Your task to perform on an android device: open app "DoorDash - Food Delivery" (install if not already installed), go to login, and select forgot password Image 0: 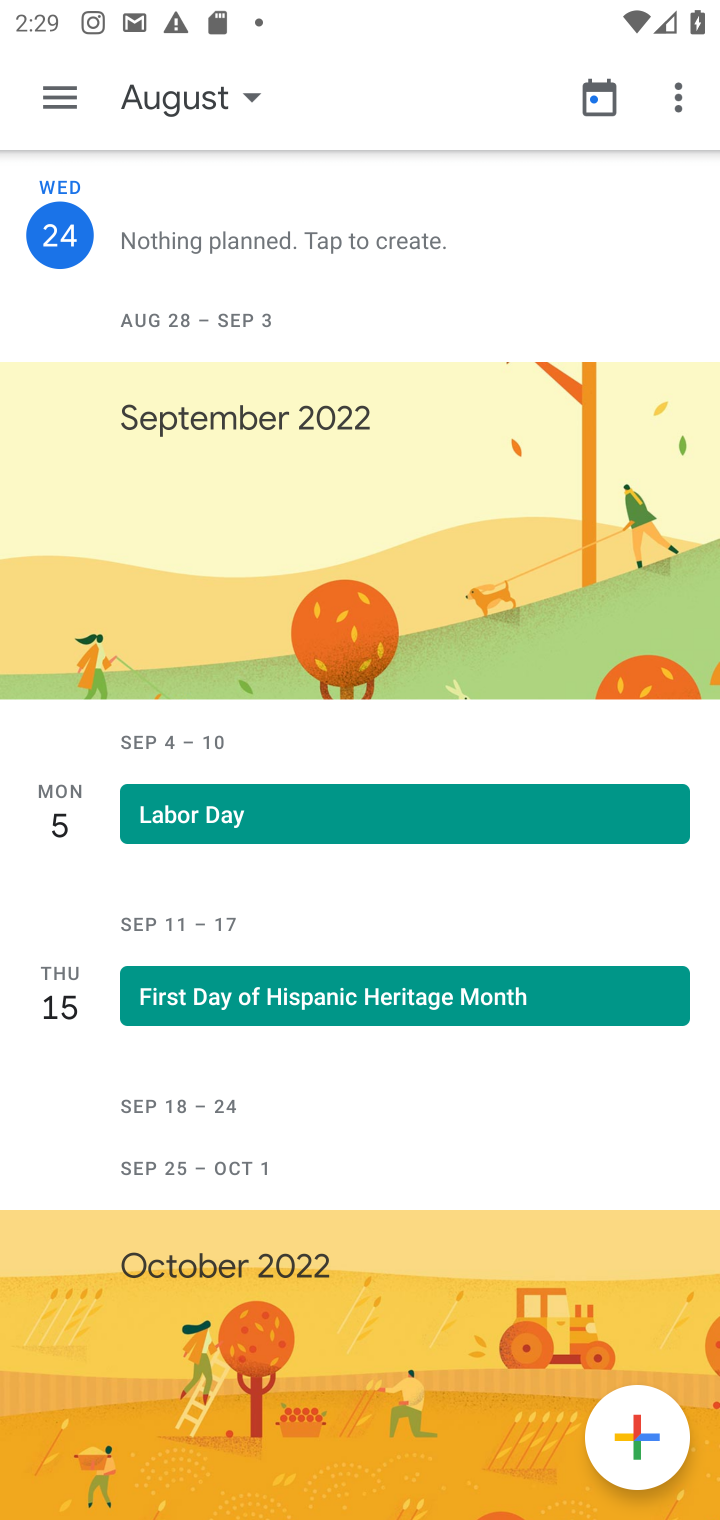
Step 0: press home button
Your task to perform on an android device: open app "DoorDash - Food Delivery" (install if not already installed), go to login, and select forgot password Image 1: 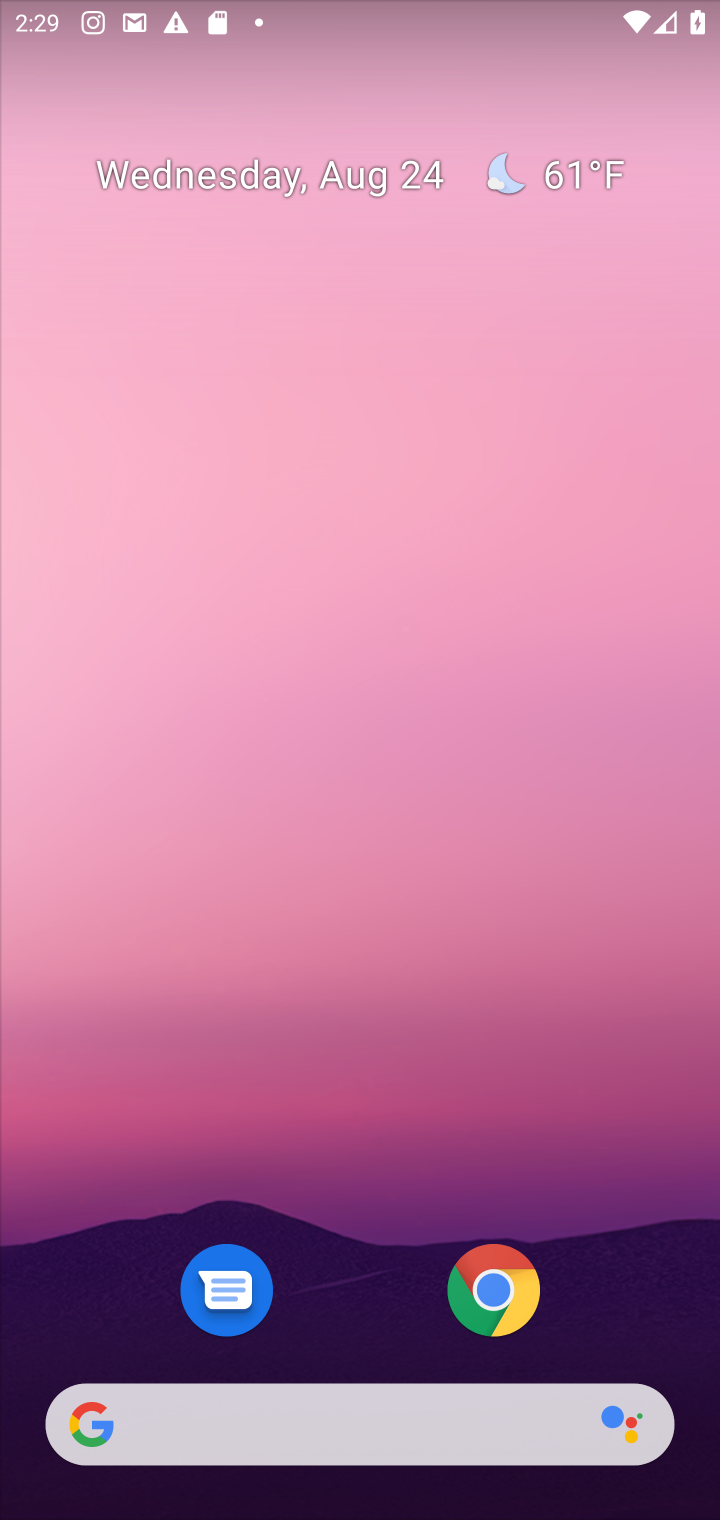
Step 1: drag from (381, 350) to (386, 160)
Your task to perform on an android device: open app "DoorDash - Food Delivery" (install if not already installed), go to login, and select forgot password Image 2: 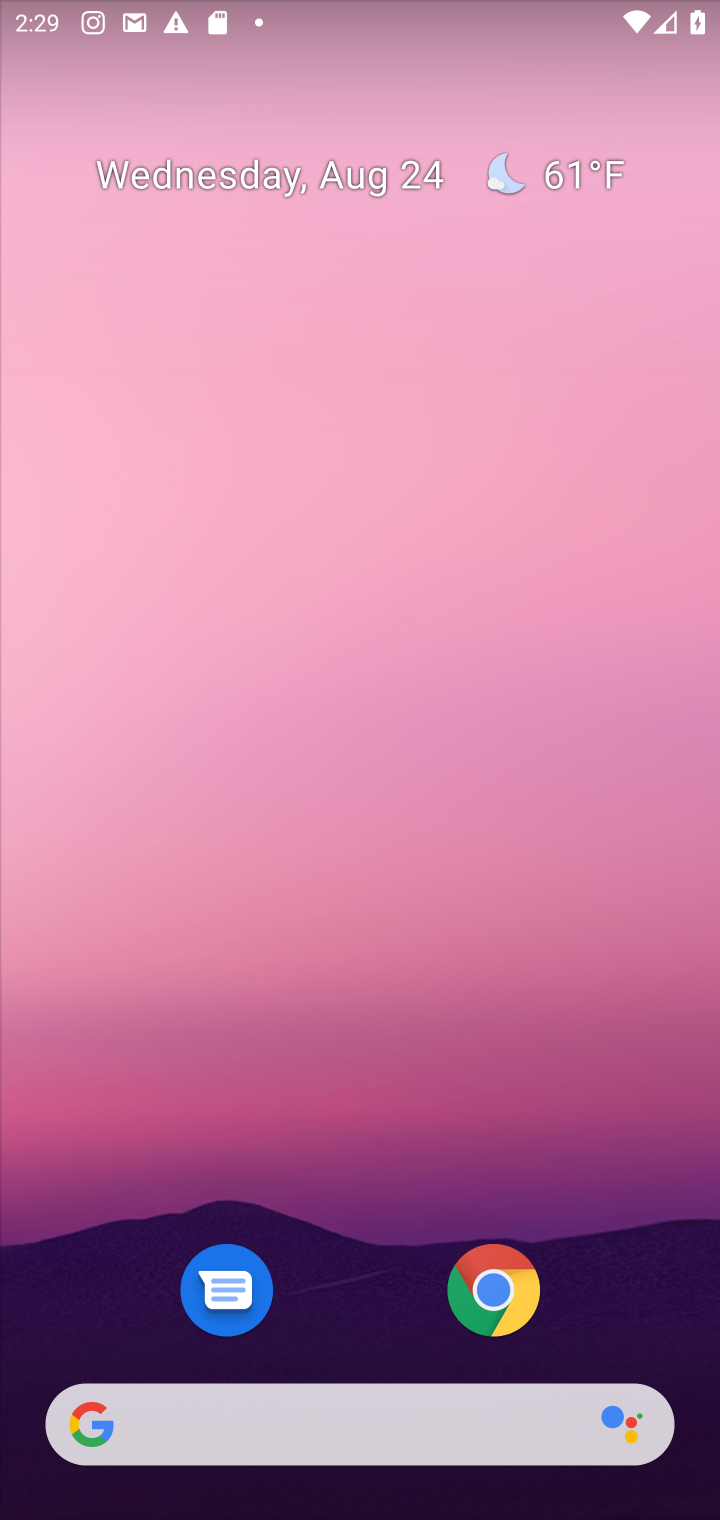
Step 2: drag from (355, 1343) to (367, 208)
Your task to perform on an android device: open app "DoorDash - Food Delivery" (install if not already installed), go to login, and select forgot password Image 3: 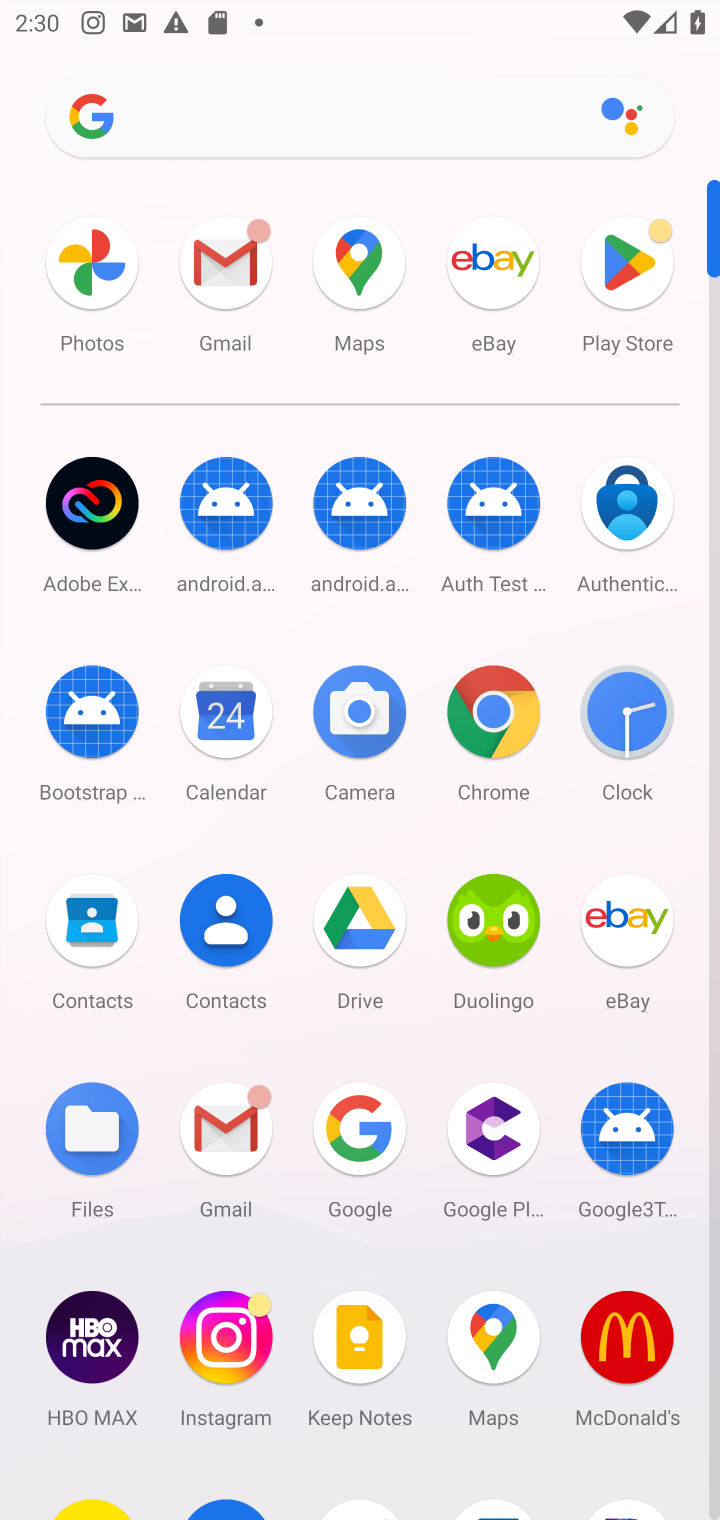
Step 3: click (625, 296)
Your task to perform on an android device: open app "DoorDash - Food Delivery" (install if not already installed), go to login, and select forgot password Image 4: 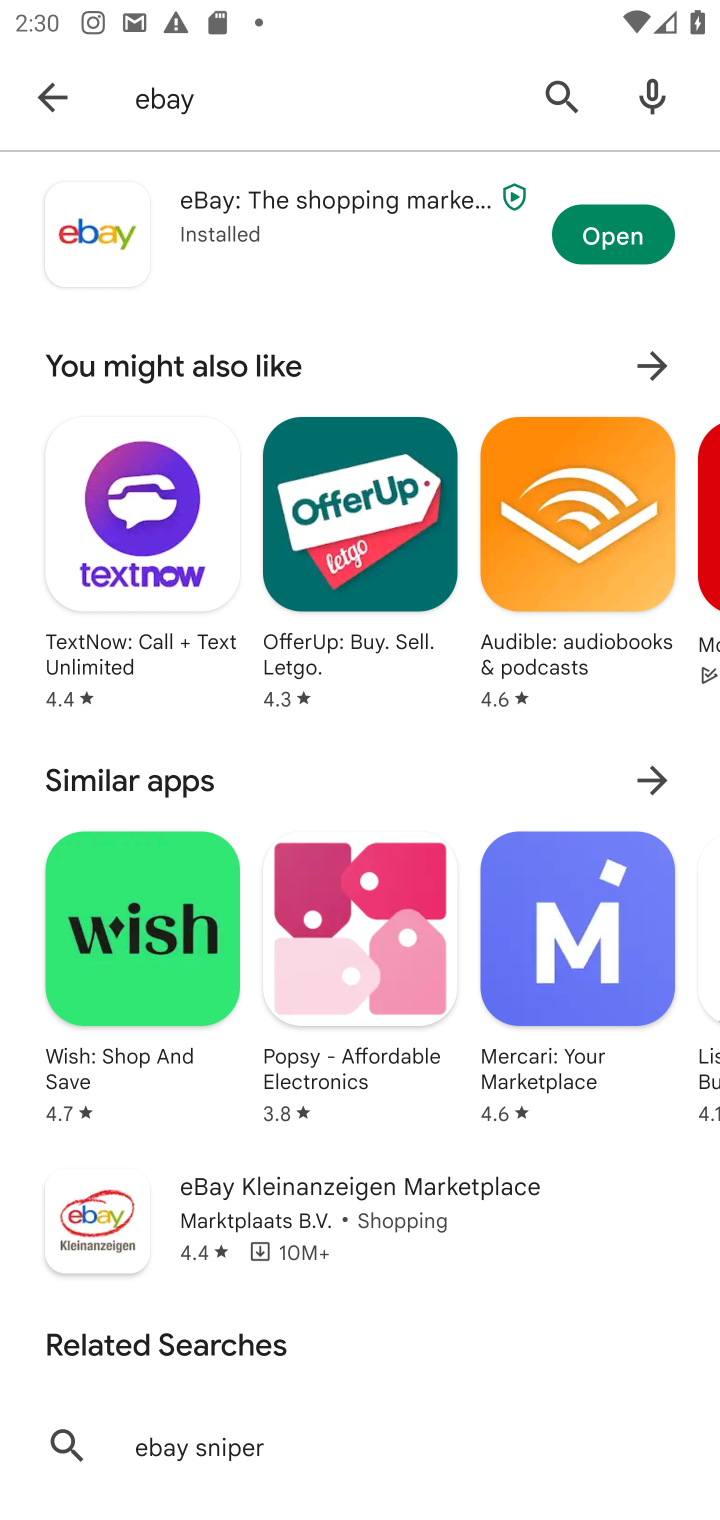
Step 4: click (41, 93)
Your task to perform on an android device: open app "DoorDash - Food Delivery" (install if not already installed), go to login, and select forgot password Image 5: 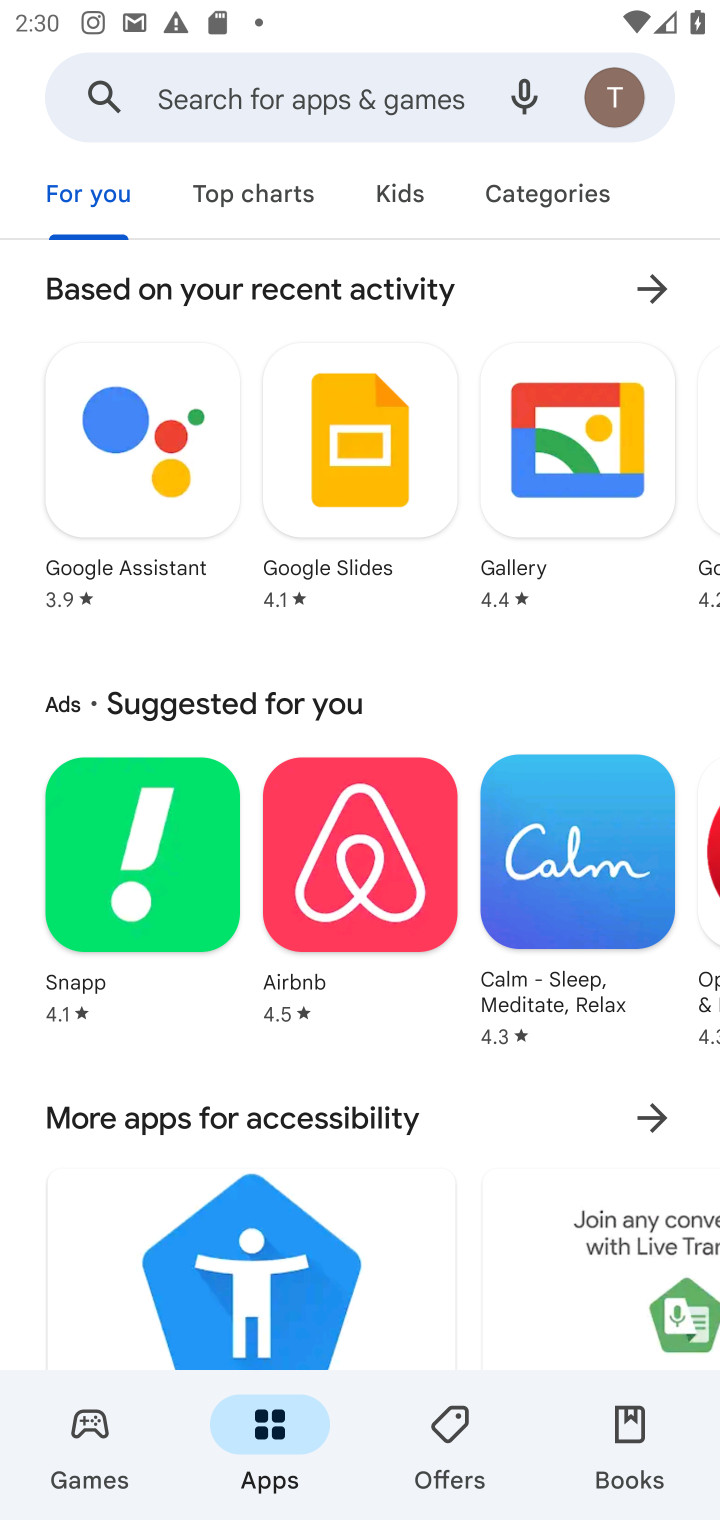
Step 5: click (245, 116)
Your task to perform on an android device: open app "DoorDash - Food Delivery" (install if not already installed), go to login, and select forgot password Image 6: 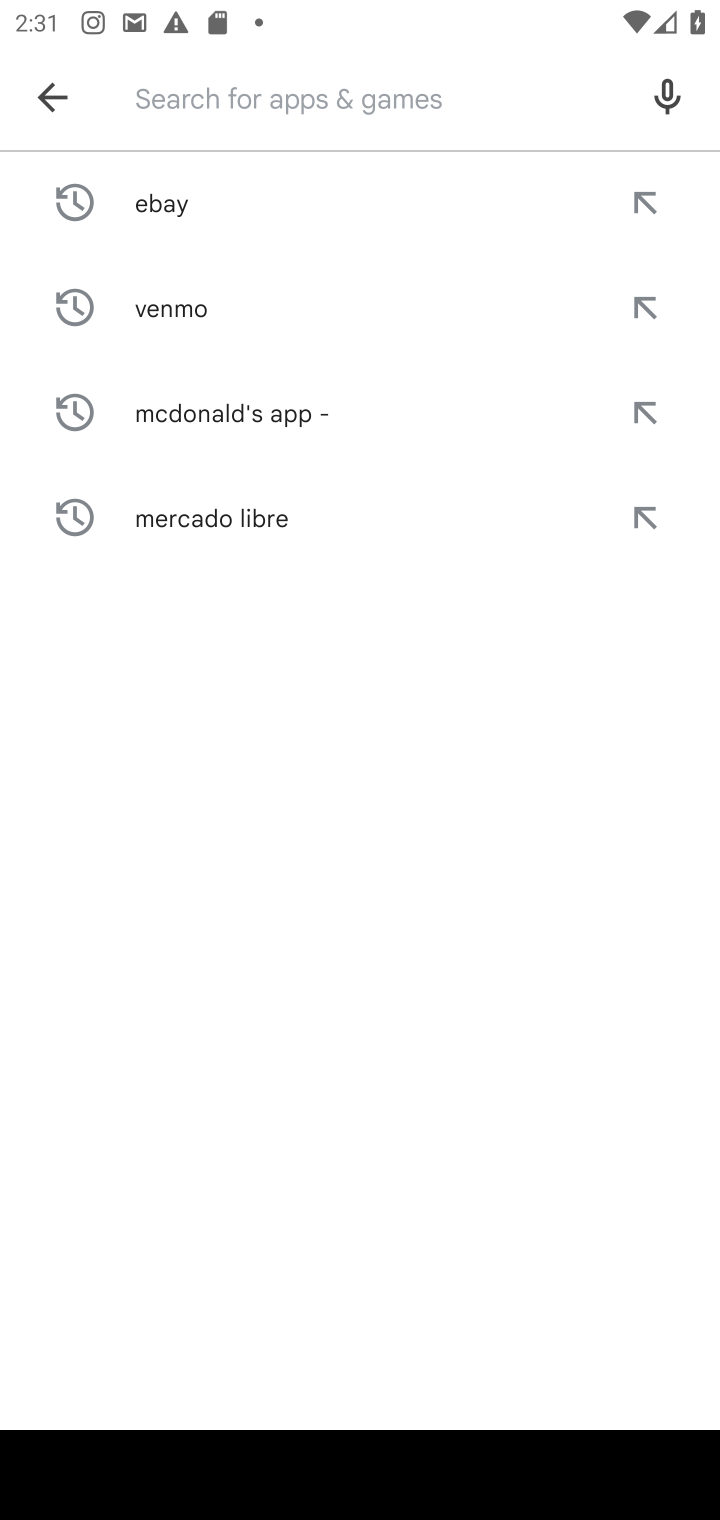
Step 6: type "DoorDash - Food Delivery"
Your task to perform on an android device: open app "DoorDash - Food Delivery" (install if not already installed), go to login, and select forgot password Image 7: 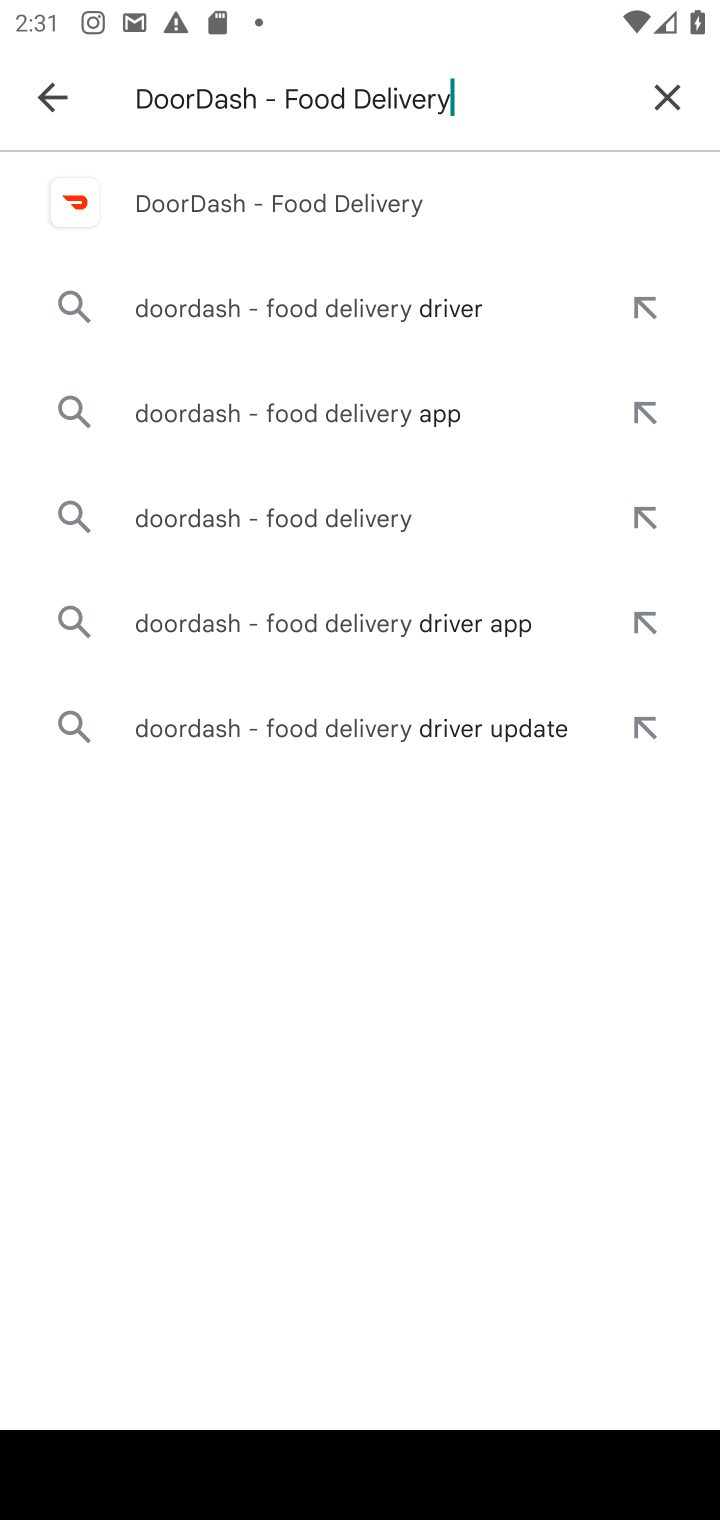
Step 7: click (147, 211)
Your task to perform on an android device: open app "DoorDash - Food Delivery" (install if not already installed), go to login, and select forgot password Image 8: 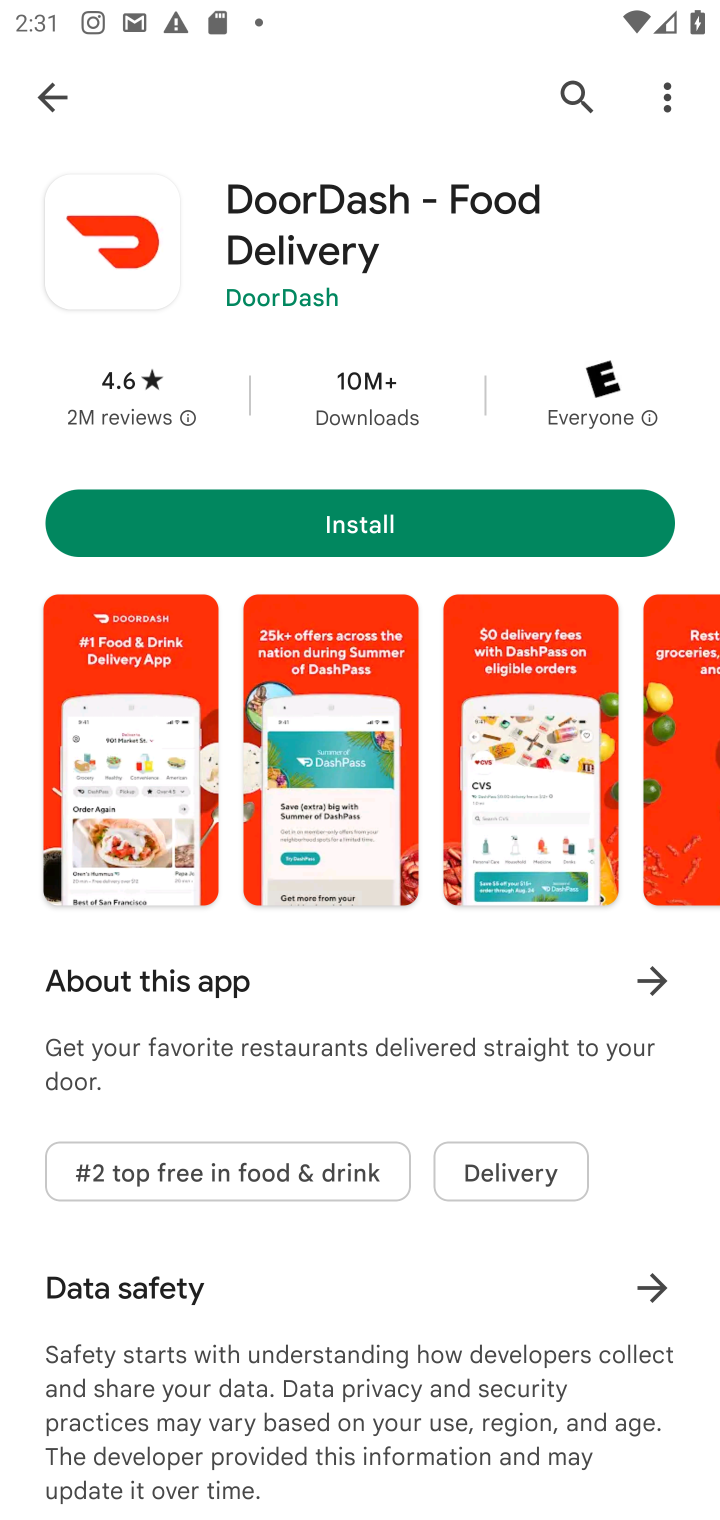
Step 8: click (342, 499)
Your task to perform on an android device: open app "DoorDash - Food Delivery" (install if not already installed), go to login, and select forgot password Image 9: 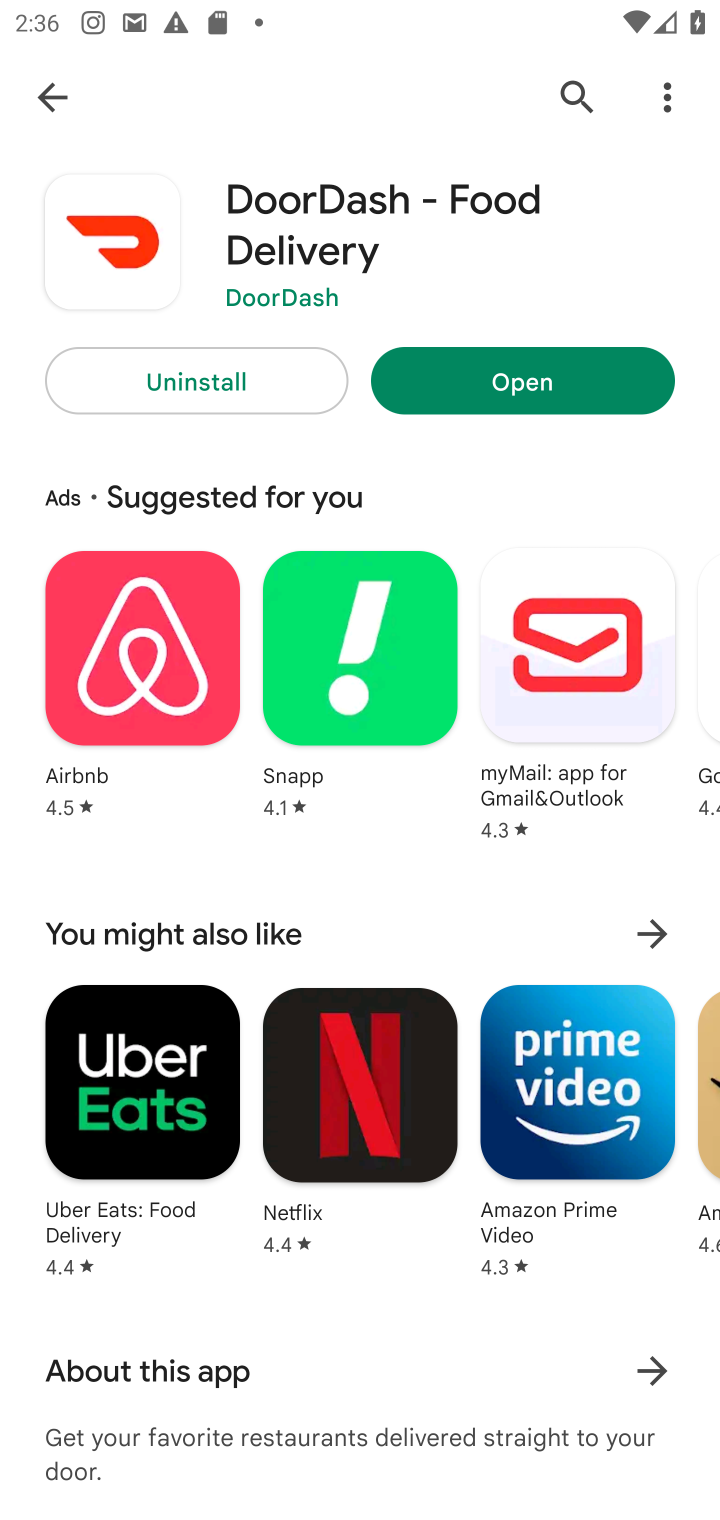
Step 9: click (494, 390)
Your task to perform on an android device: open app "DoorDash - Food Delivery" (install if not already installed), go to login, and select forgot password Image 10: 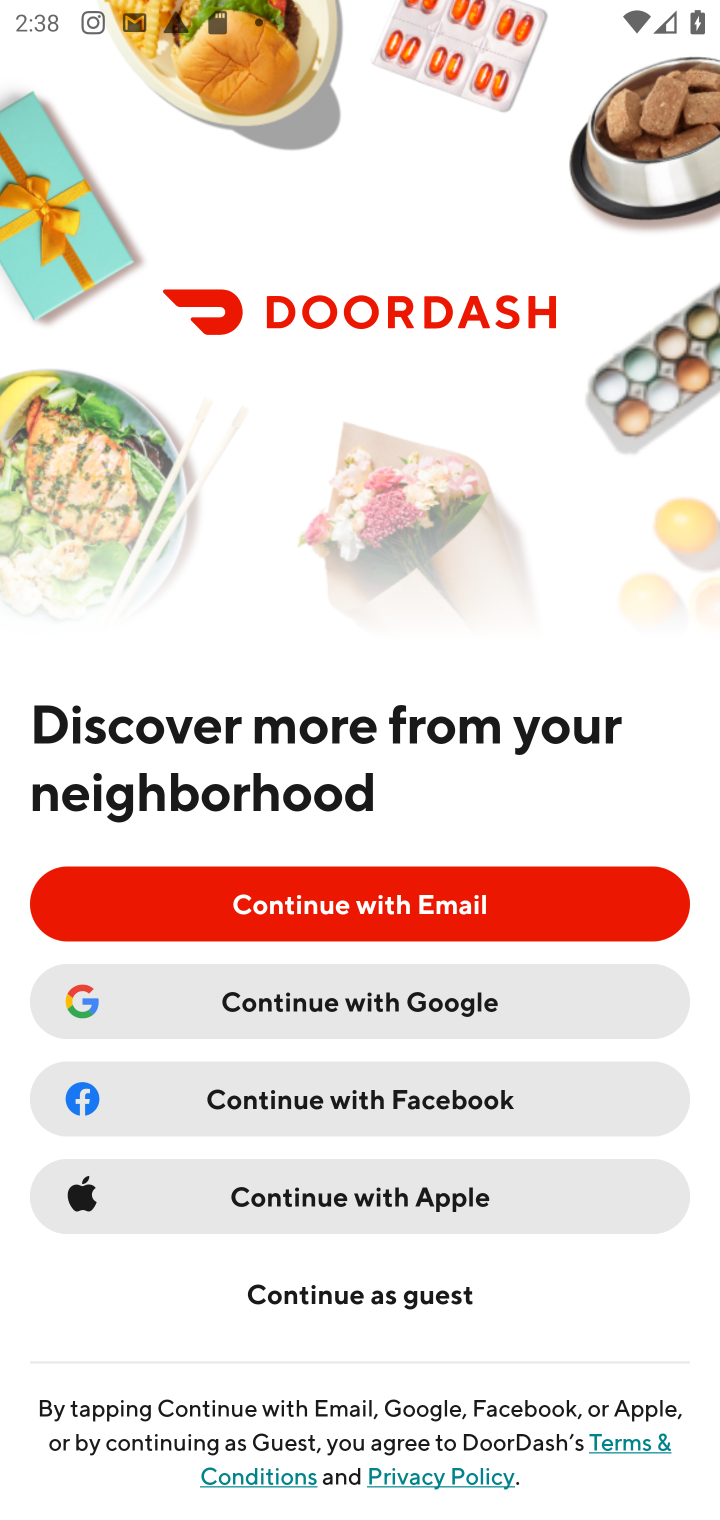
Step 10: task complete